Your task to perform on an android device: Open calendar and show me the second week of next month Image 0: 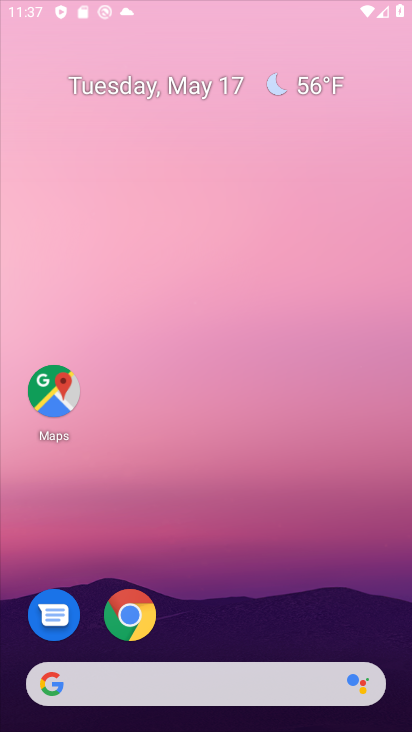
Step 0: click (254, 55)
Your task to perform on an android device: Open calendar and show me the second week of next month Image 1: 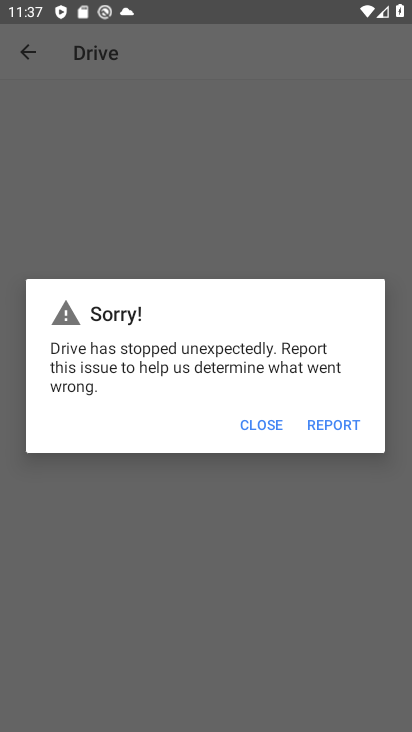
Step 1: press home button
Your task to perform on an android device: Open calendar and show me the second week of next month Image 2: 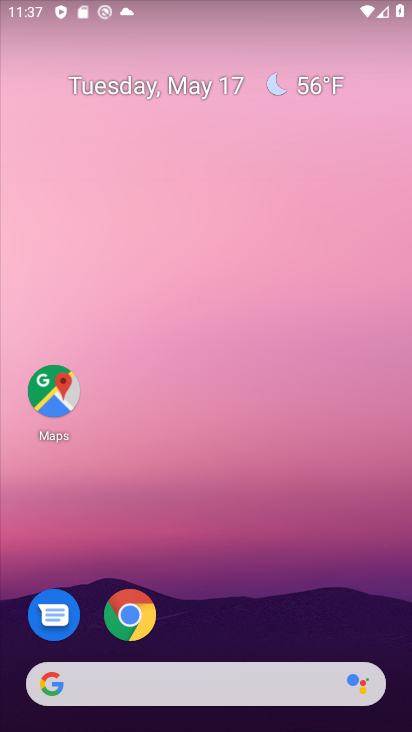
Step 2: drag from (223, 644) to (309, 551)
Your task to perform on an android device: Open calendar and show me the second week of next month Image 3: 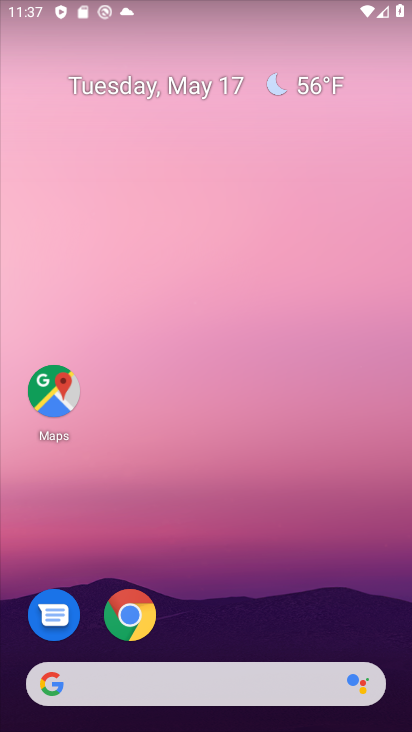
Step 3: drag from (202, 642) to (170, 2)
Your task to perform on an android device: Open calendar and show me the second week of next month Image 4: 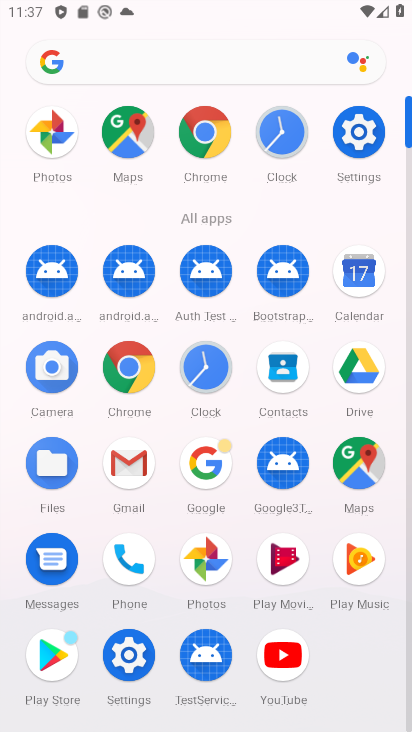
Step 4: click (360, 283)
Your task to perform on an android device: Open calendar and show me the second week of next month Image 5: 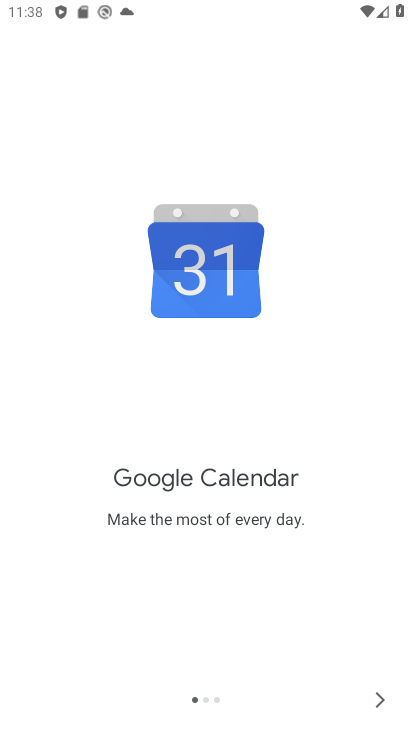
Step 5: click (380, 715)
Your task to perform on an android device: Open calendar and show me the second week of next month Image 6: 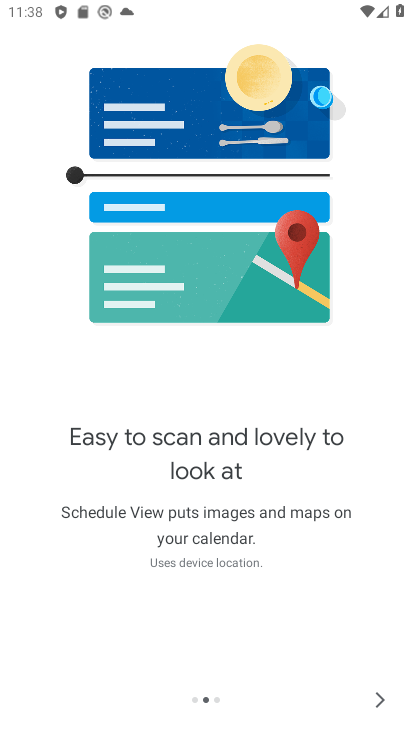
Step 6: click (378, 708)
Your task to perform on an android device: Open calendar and show me the second week of next month Image 7: 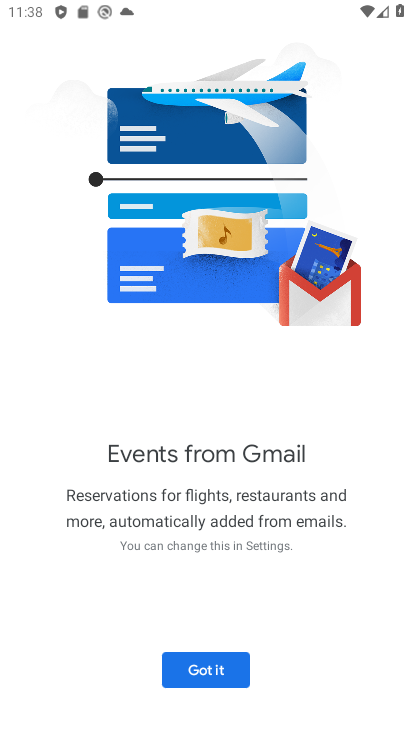
Step 7: click (193, 668)
Your task to perform on an android device: Open calendar and show me the second week of next month Image 8: 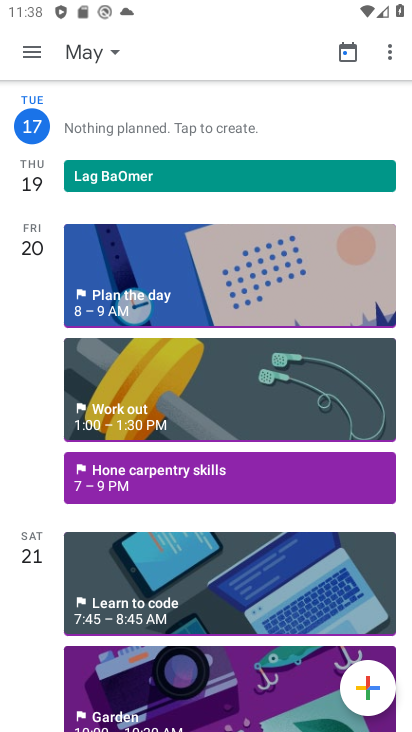
Step 8: click (28, 53)
Your task to perform on an android device: Open calendar and show me the second week of next month Image 9: 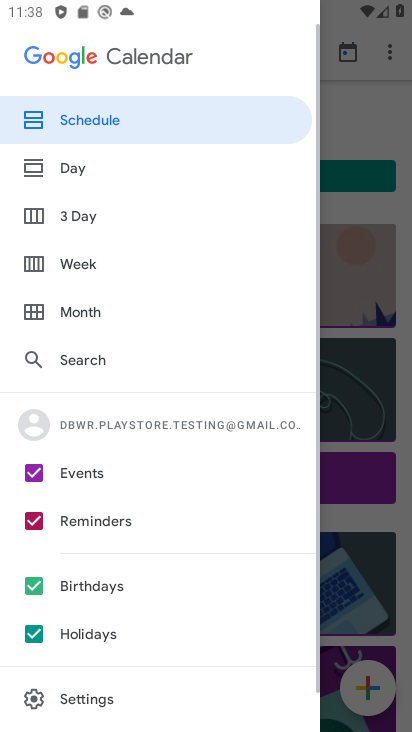
Step 9: click (108, 273)
Your task to perform on an android device: Open calendar and show me the second week of next month Image 10: 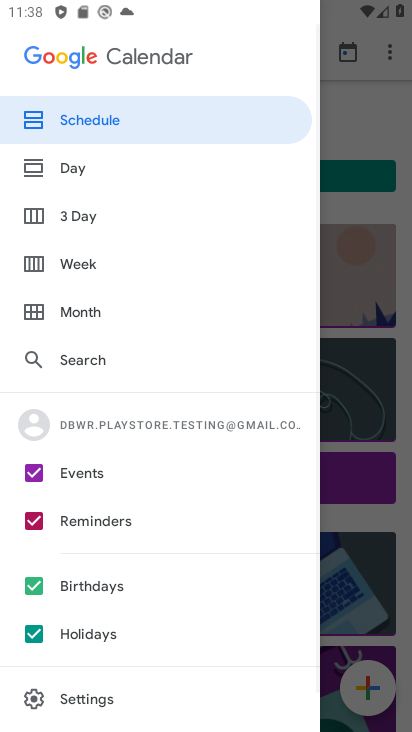
Step 10: click (101, 271)
Your task to perform on an android device: Open calendar and show me the second week of next month Image 11: 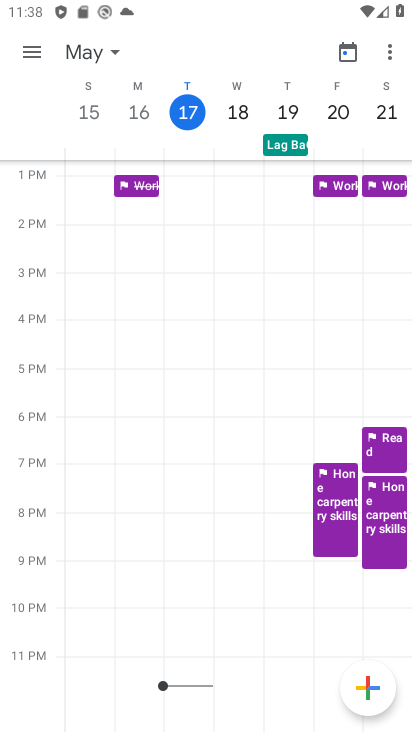
Step 11: task complete